Your task to perform on an android device: Open the map Image 0: 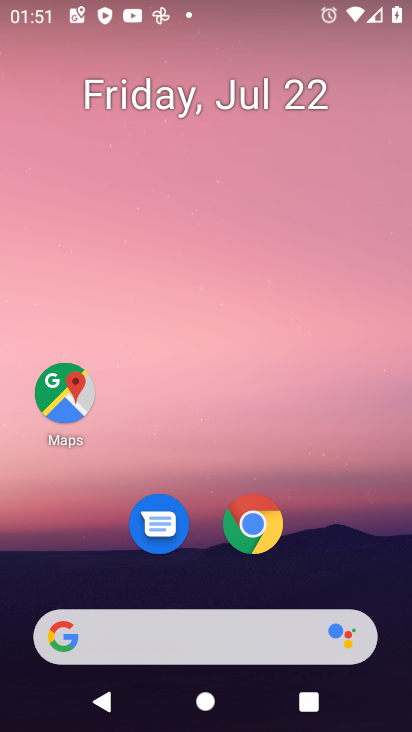
Step 0: press home button
Your task to perform on an android device: Open the map Image 1: 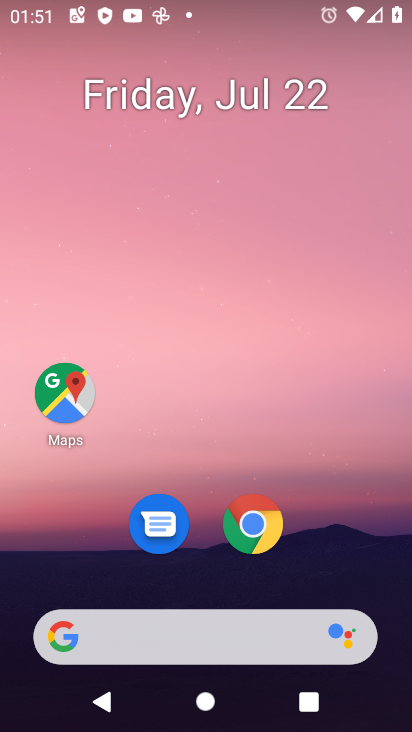
Step 1: click (64, 402)
Your task to perform on an android device: Open the map Image 2: 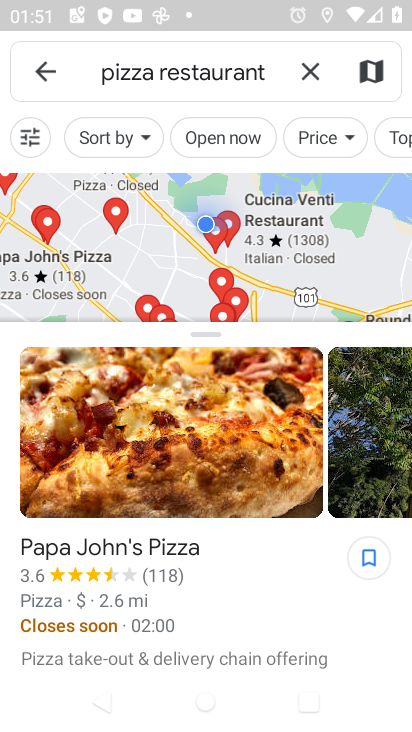
Step 2: click (49, 76)
Your task to perform on an android device: Open the map Image 3: 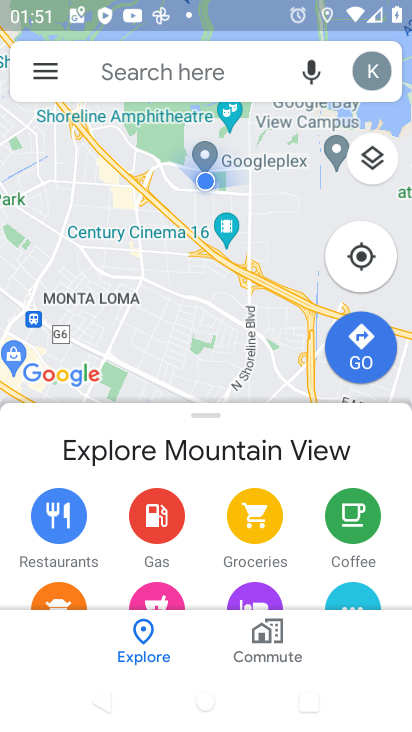
Step 3: task complete